Your task to perform on an android device: set the stopwatch Image 0: 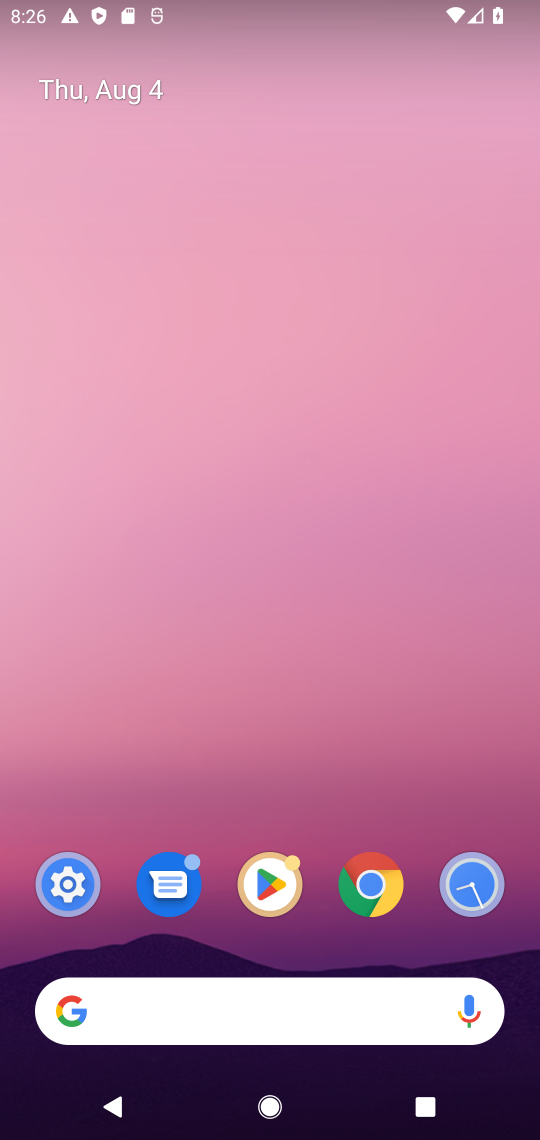
Step 0: drag from (345, 566) to (342, 425)
Your task to perform on an android device: set the stopwatch Image 1: 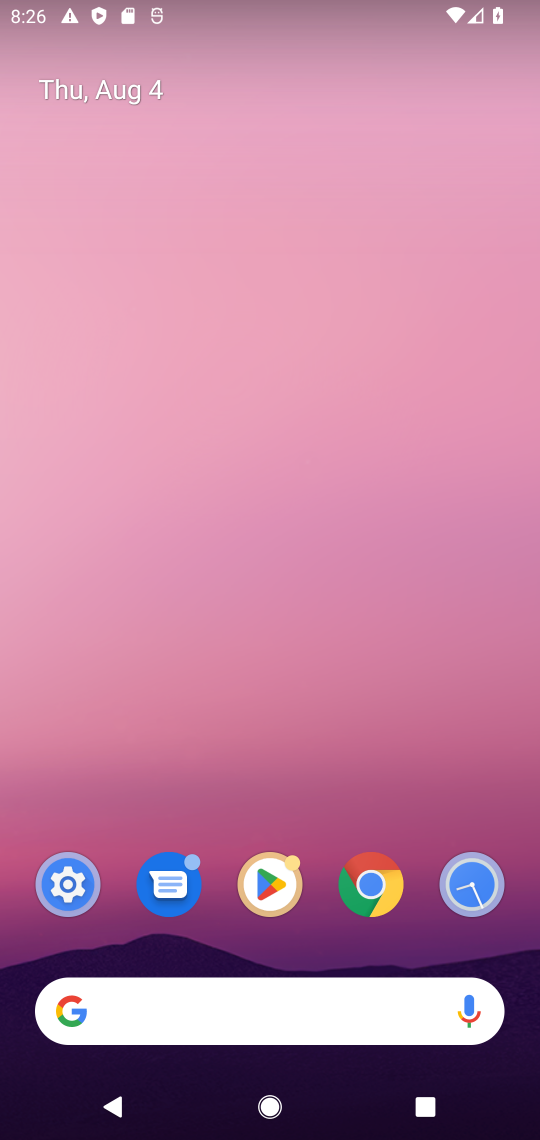
Step 1: click (474, 888)
Your task to perform on an android device: set the stopwatch Image 2: 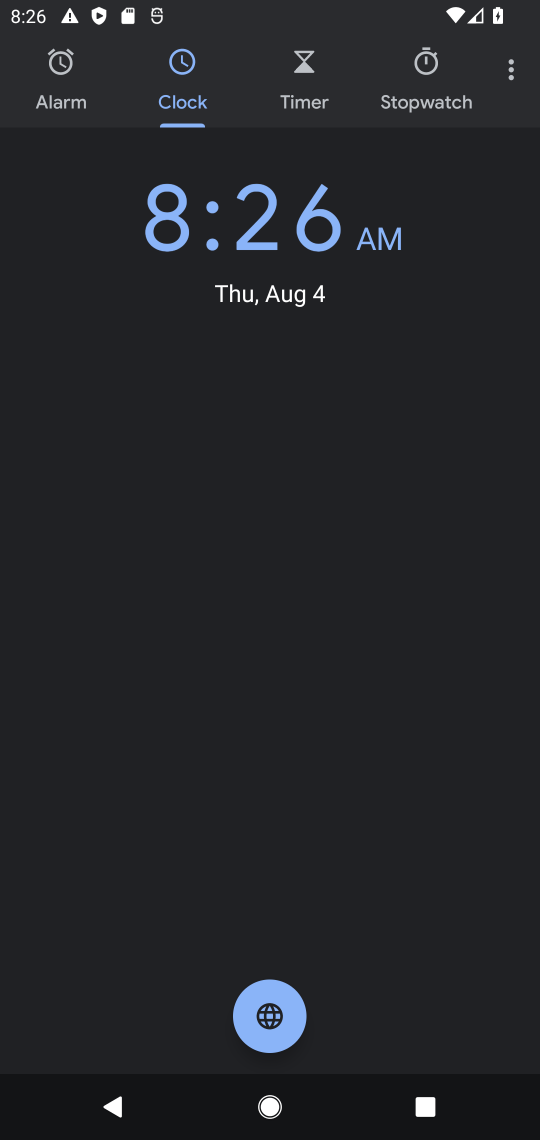
Step 2: click (438, 75)
Your task to perform on an android device: set the stopwatch Image 3: 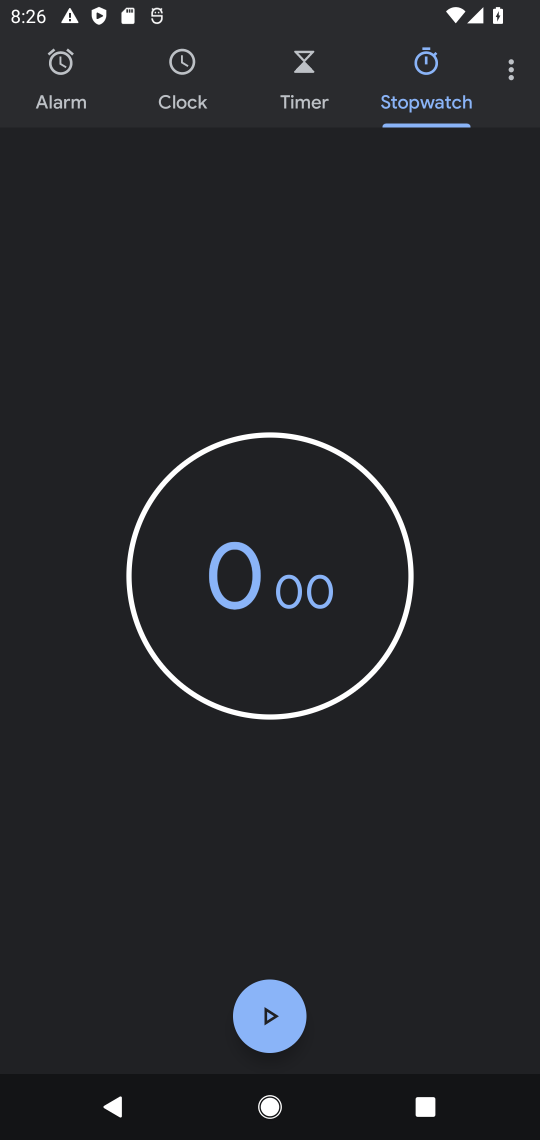
Step 3: click (269, 1014)
Your task to perform on an android device: set the stopwatch Image 4: 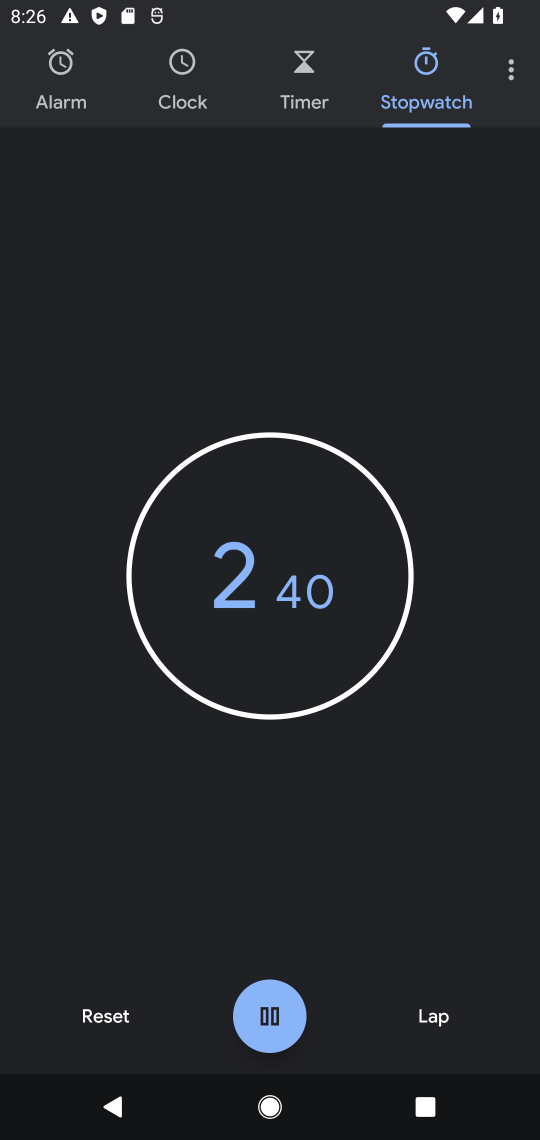
Step 4: task complete